Your task to perform on an android device: uninstall "Google Duo" Image 0: 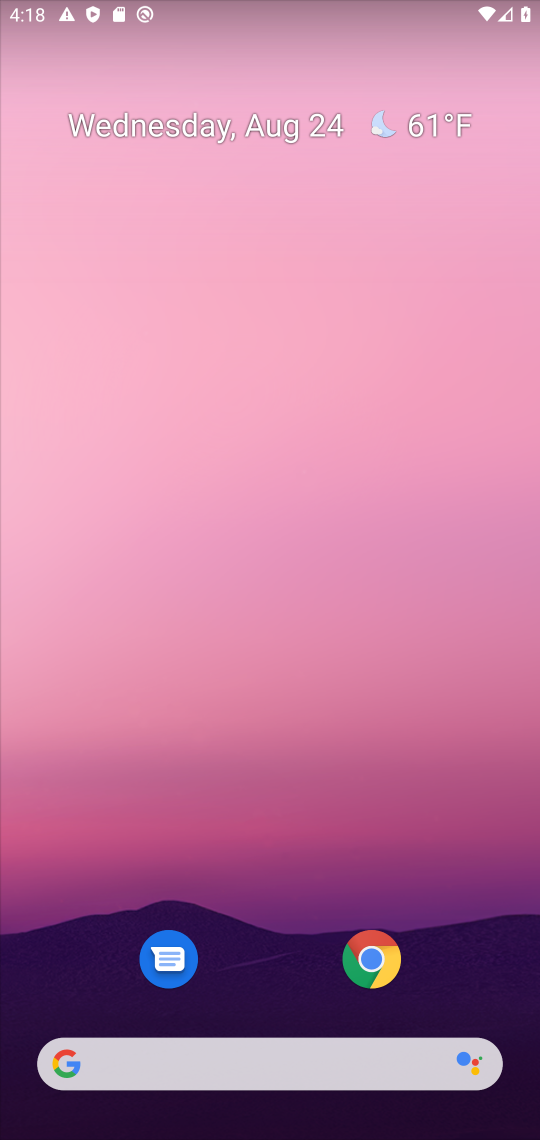
Step 0: drag from (299, 998) to (332, 3)
Your task to perform on an android device: uninstall "Google Duo" Image 1: 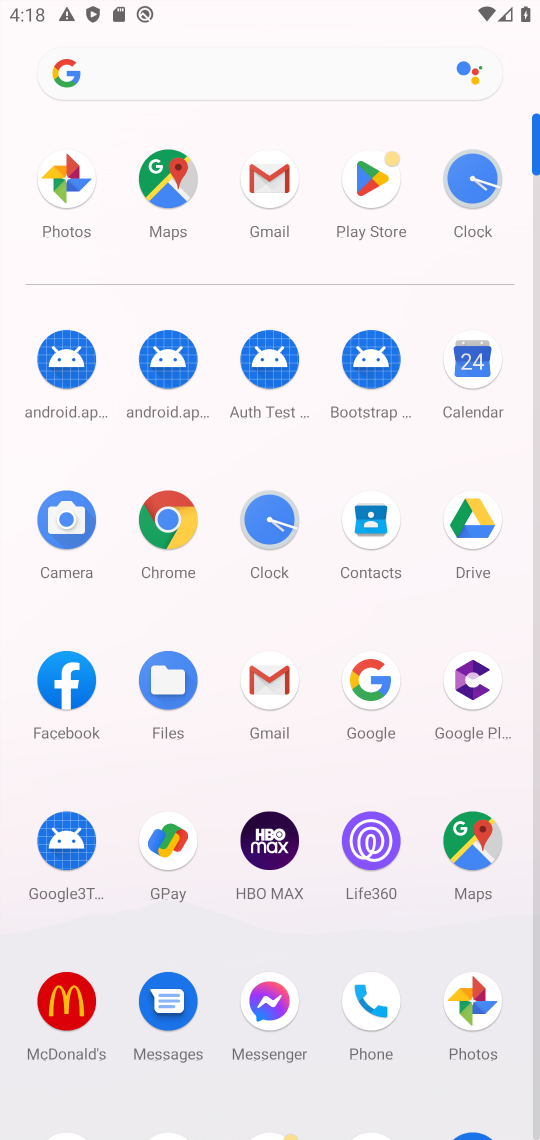
Step 1: click (393, 198)
Your task to perform on an android device: uninstall "Google Duo" Image 2: 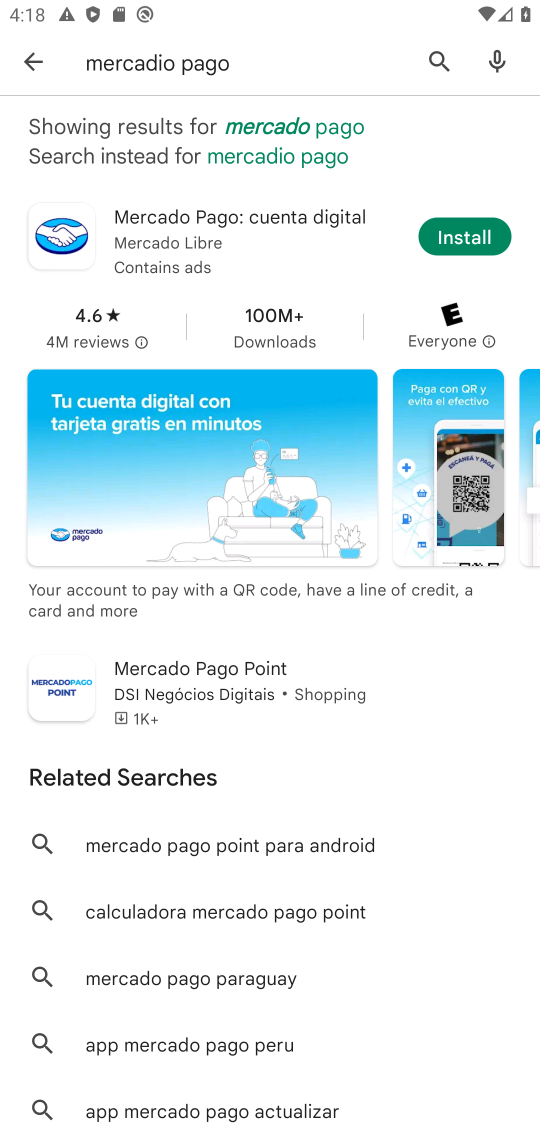
Step 2: click (444, 55)
Your task to perform on an android device: uninstall "Google Duo" Image 3: 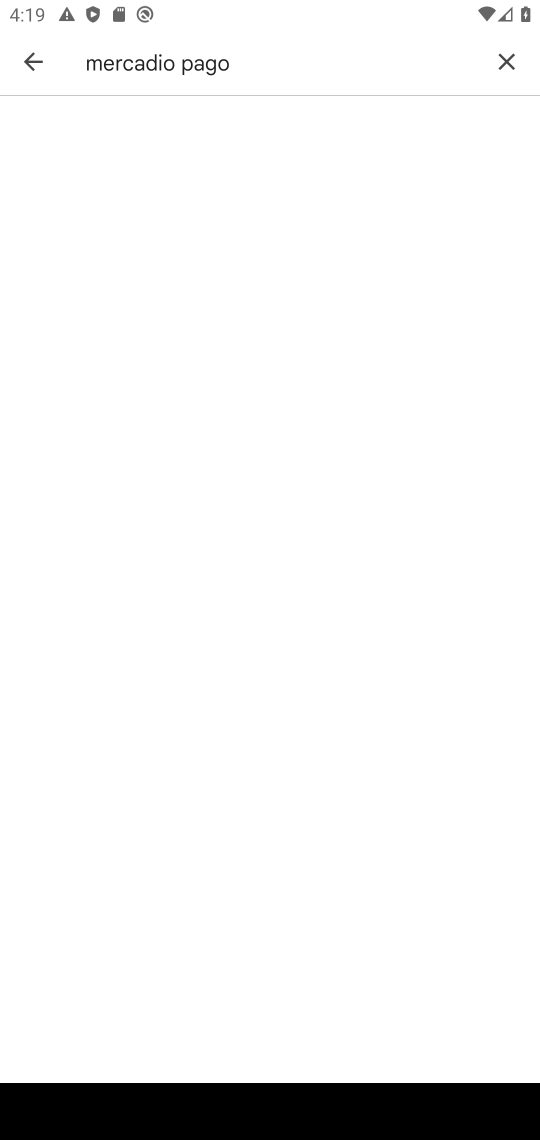
Step 3: click (509, 67)
Your task to perform on an android device: uninstall "Google Duo" Image 4: 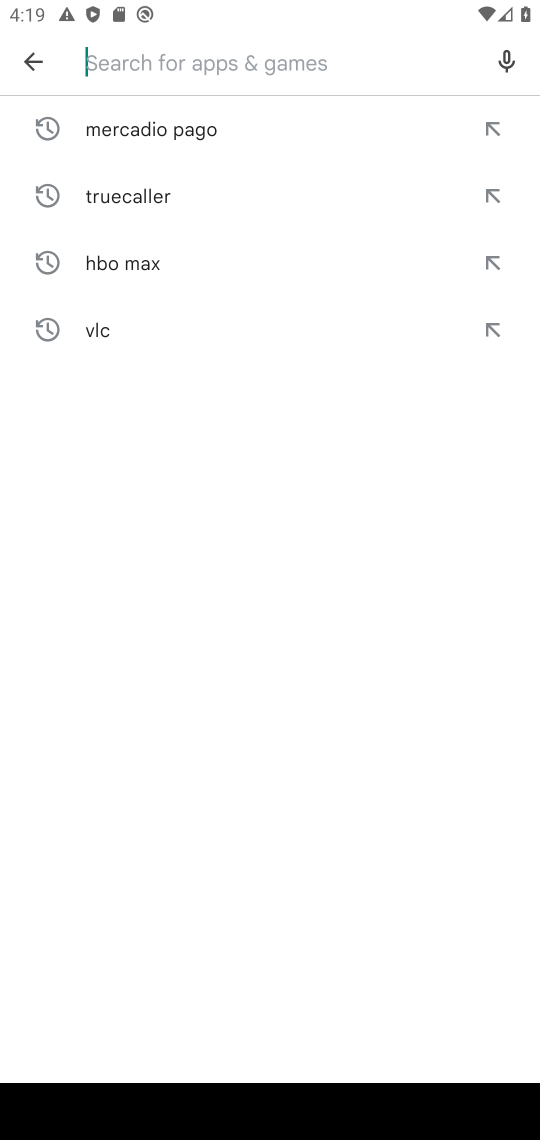
Step 4: type "google duo"
Your task to perform on an android device: uninstall "Google Duo" Image 5: 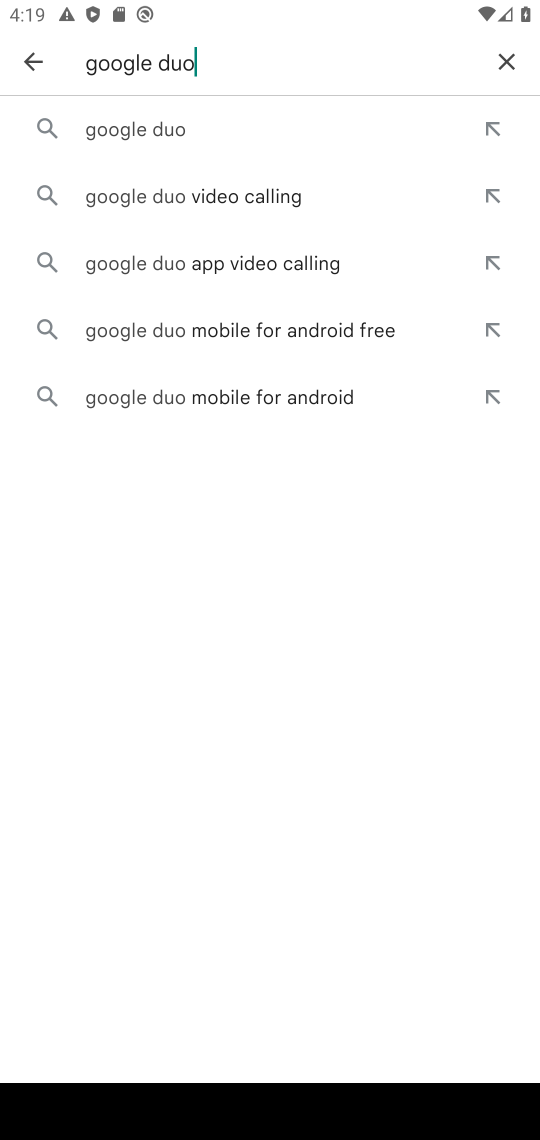
Step 5: click (241, 118)
Your task to perform on an android device: uninstall "Google Duo" Image 6: 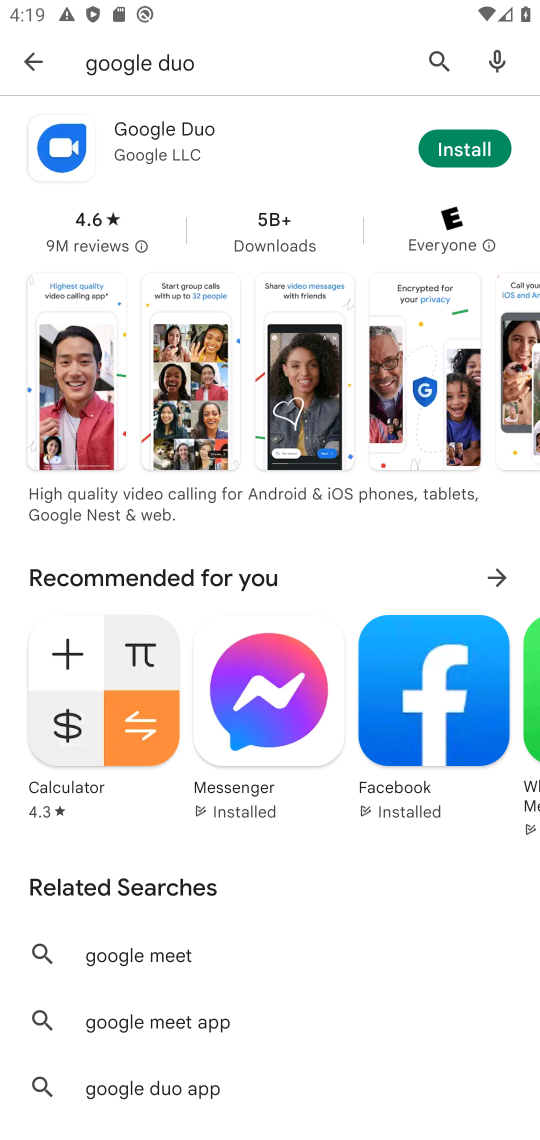
Step 6: click (461, 161)
Your task to perform on an android device: uninstall "Google Duo" Image 7: 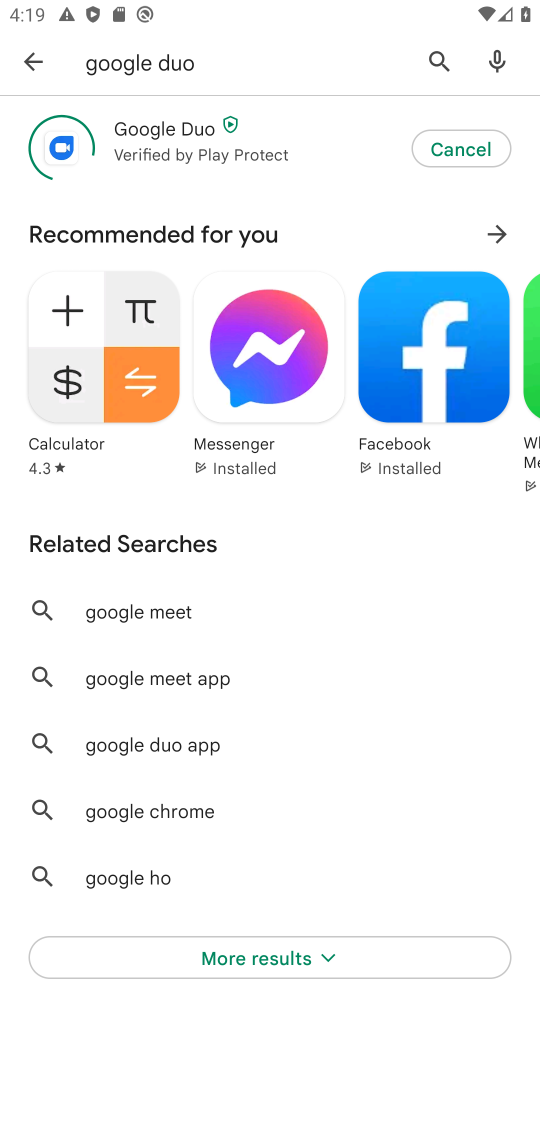
Step 7: task complete